Your task to perform on an android device: turn on the 24-hour format for clock Image 0: 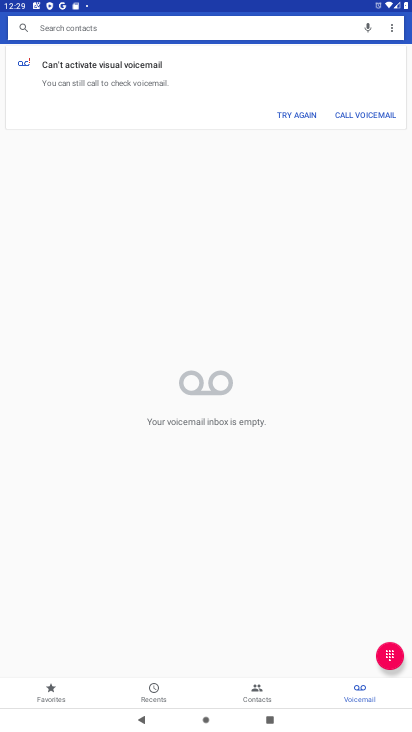
Step 0: press home button
Your task to perform on an android device: turn on the 24-hour format for clock Image 1: 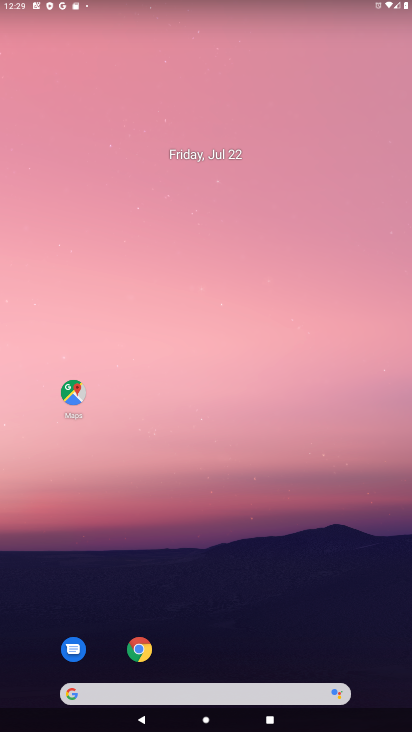
Step 1: drag from (260, 621) to (177, 78)
Your task to perform on an android device: turn on the 24-hour format for clock Image 2: 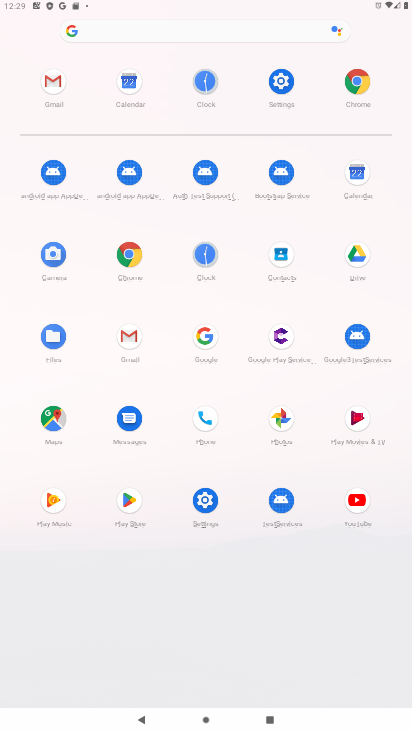
Step 2: click (212, 259)
Your task to perform on an android device: turn on the 24-hour format for clock Image 3: 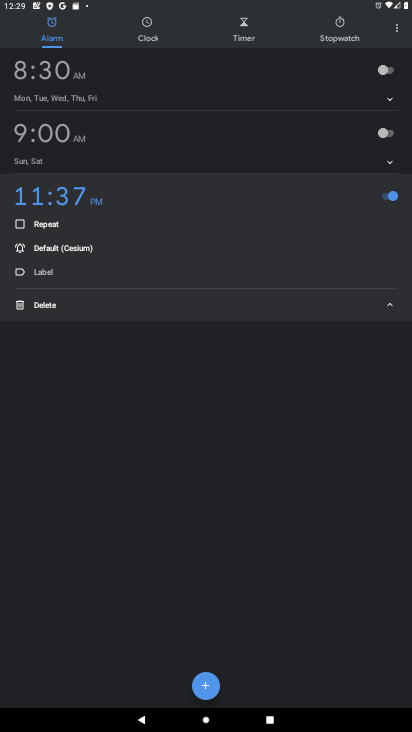
Step 3: click (400, 28)
Your task to perform on an android device: turn on the 24-hour format for clock Image 4: 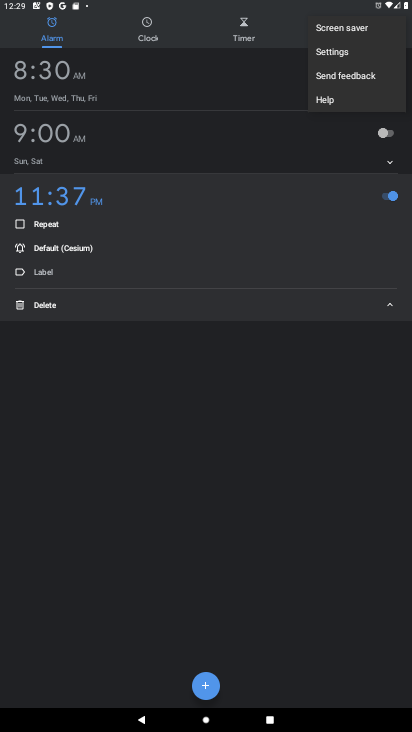
Step 4: click (343, 53)
Your task to perform on an android device: turn on the 24-hour format for clock Image 5: 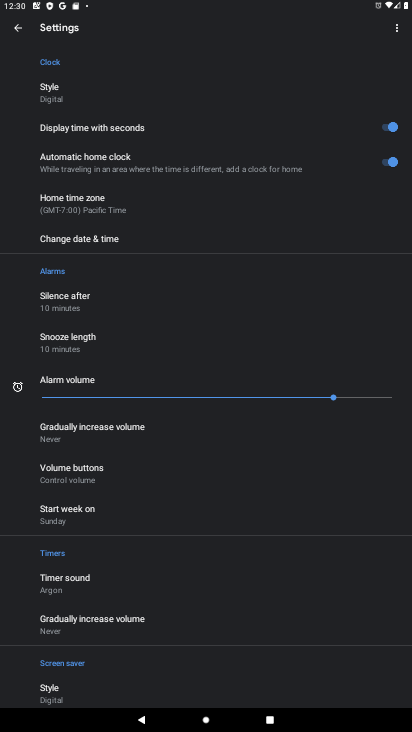
Step 5: click (400, 35)
Your task to perform on an android device: turn on the 24-hour format for clock Image 6: 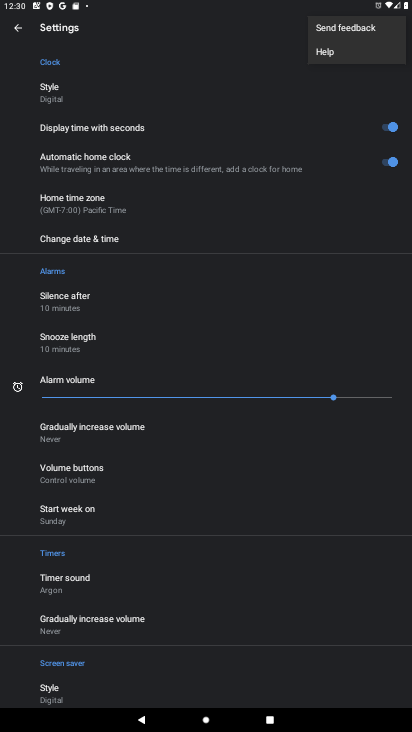
Step 6: click (319, 128)
Your task to perform on an android device: turn on the 24-hour format for clock Image 7: 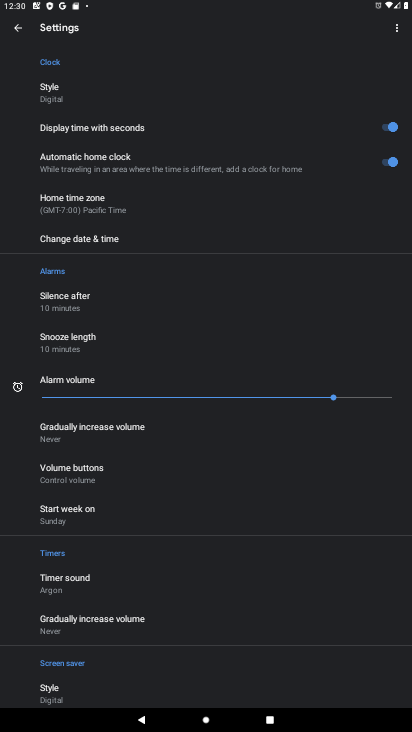
Step 7: click (119, 241)
Your task to perform on an android device: turn on the 24-hour format for clock Image 8: 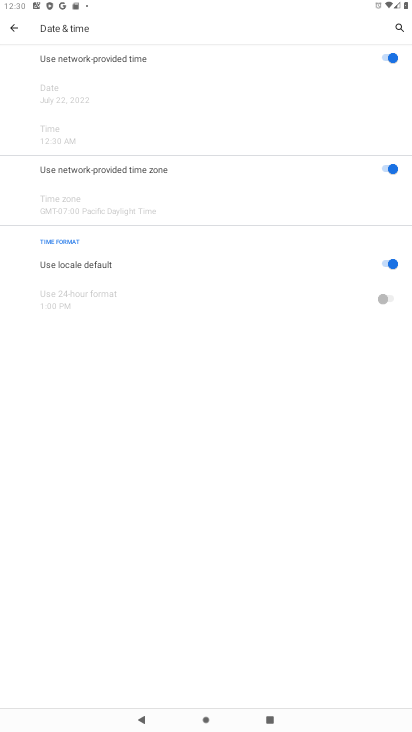
Step 8: click (395, 265)
Your task to perform on an android device: turn on the 24-hour format for clock Image 9: 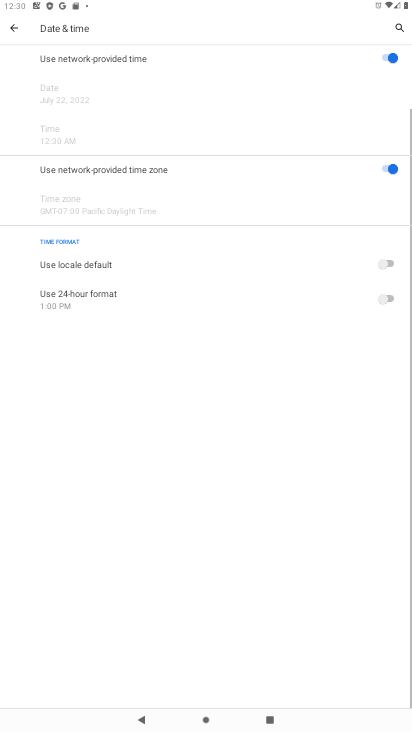
Step 9: click (394, 291)
Your task to perform on an android device: turn on the 24-hour format for clock Image 10: 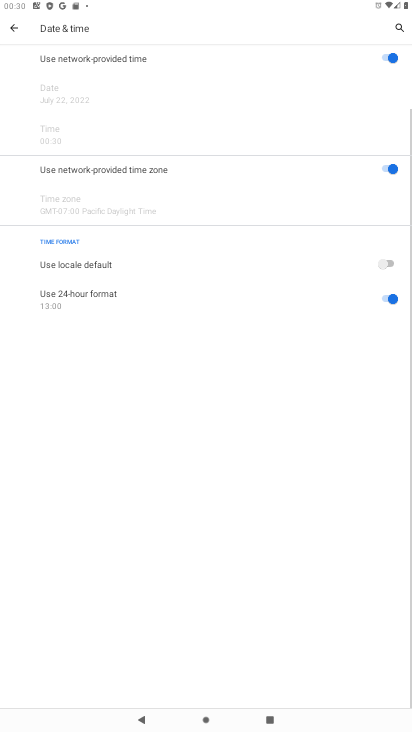
Step 10: task complete